Your task to perform on an android device: Go to network settings Image 0: 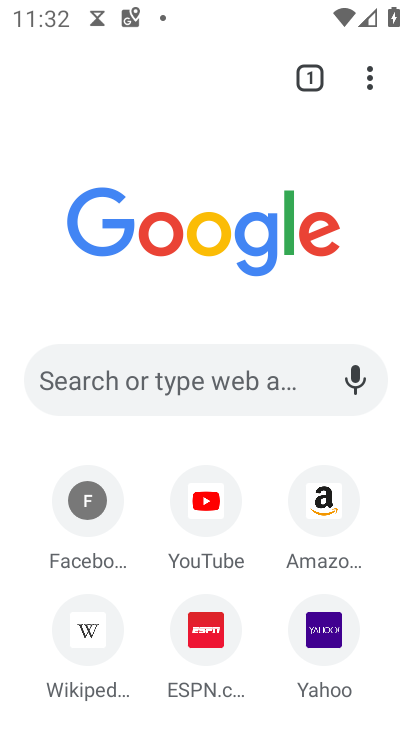
Step 0: press home button
Your task to perform on an android device: Go to network settings Image 1: 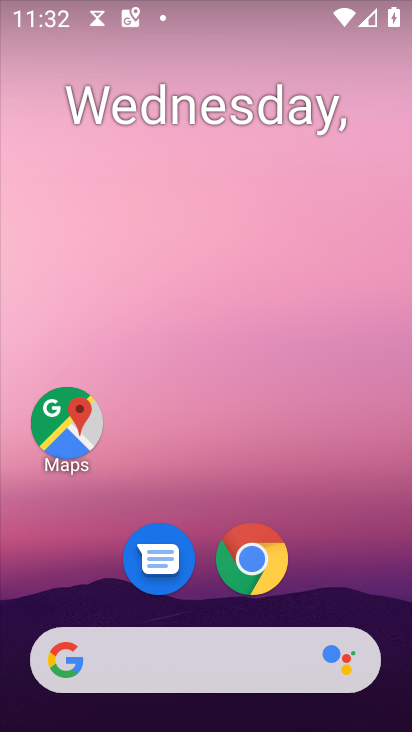
Step 1: drag from (374, 595) to (287, 121)
Your task to perform on an android device: Go to network settings Image 2: 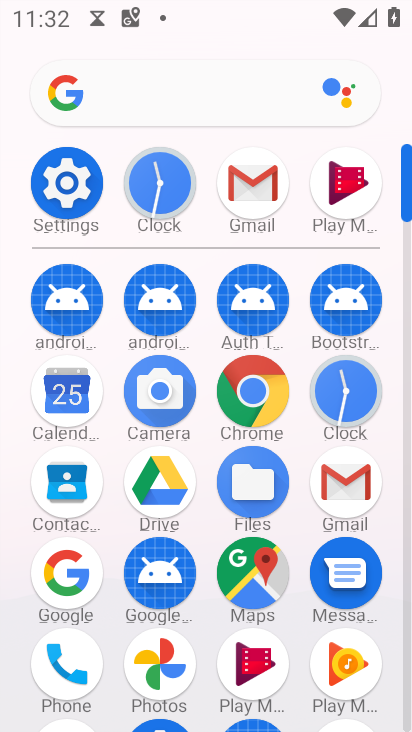
Step 2: click (87, 183)
Your task to perform on an android device: Go to network settings Image 3: 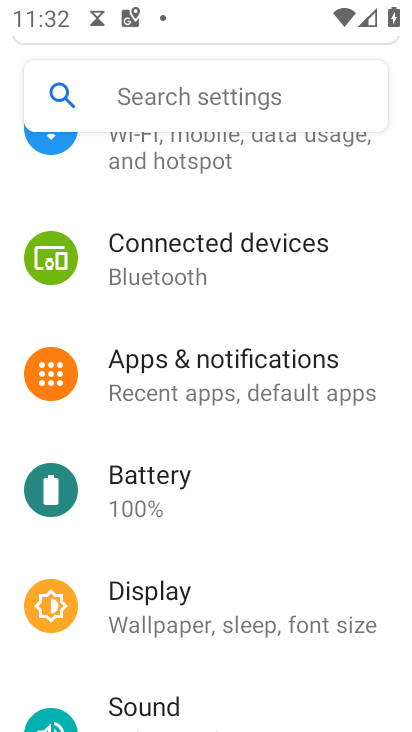
Step 3: drag from (204, 193) to (218, 427)
Your task to perform on an android device: Go to network settings Image 4: 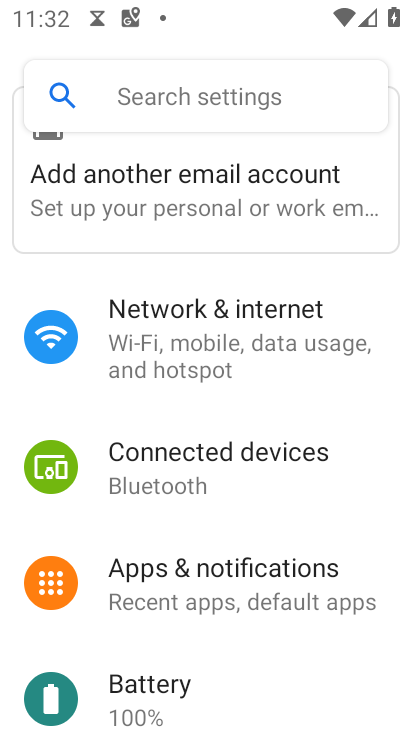
Step 4: click (232, 340)
Your task to perform on an android device: Go to network settings Image 5: 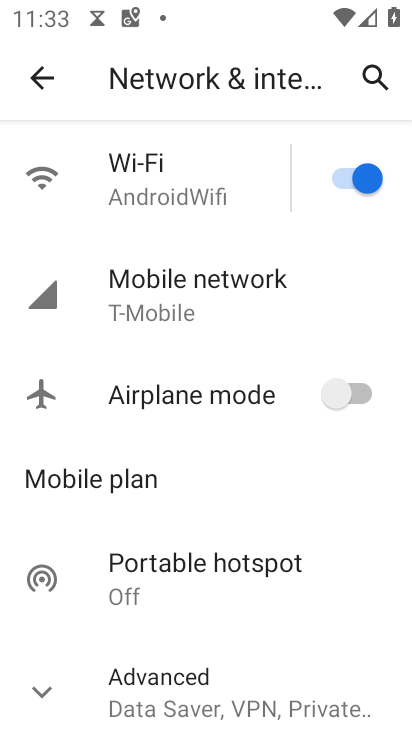
Step 5: task complete